Your task to perform on an android device: open chrome and create a bookmark for the current page Image 0: 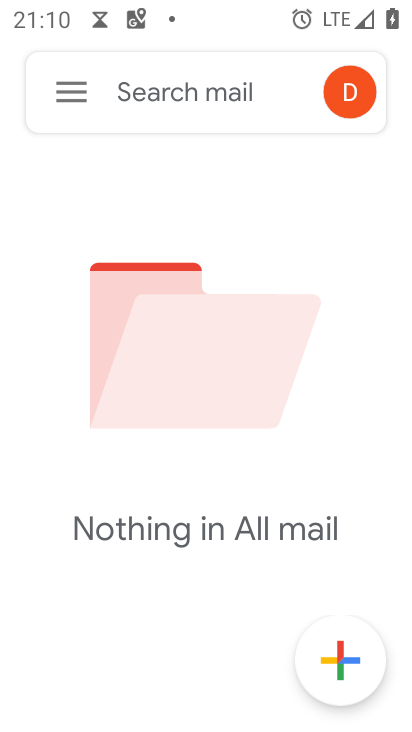
Step 0: press home button
Your task to perform on an android device: open chrome and create a bookmark for the current page Image 1: 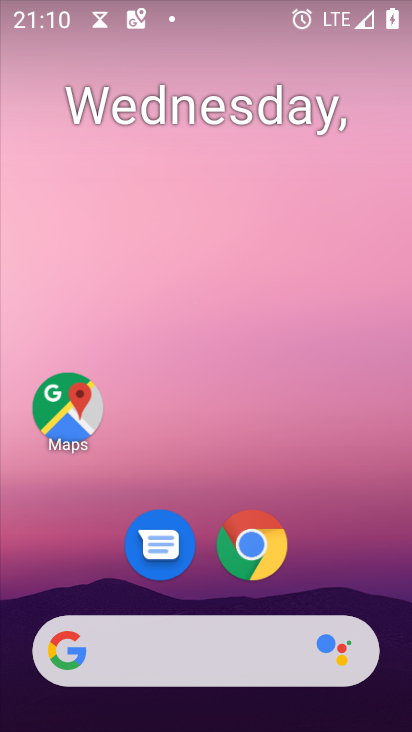
Step 1: click (269, 549)
Your task to perform on an android device: open chrome and create a bookmark for the current page Image 2: 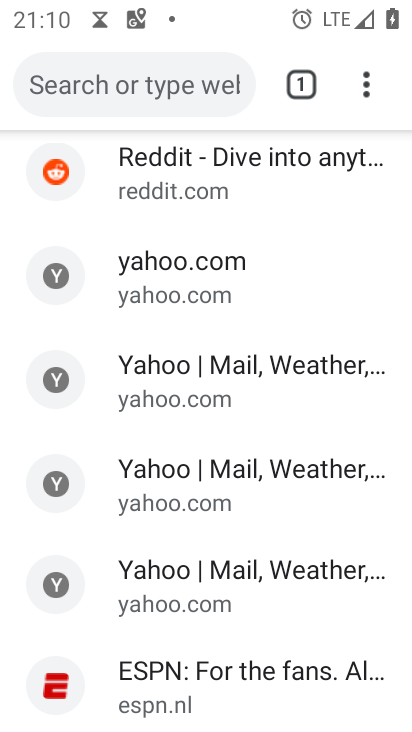
Step 2: click (364, 110)
Your task to perform on an android device: open chrome and create a bookmark for the current page Image 3: 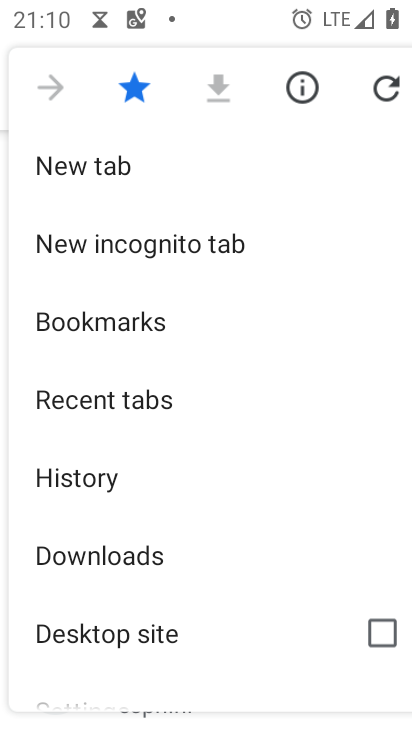
Step 3: task complete